Your task to perform on an android device: Open Amazon Image 0: 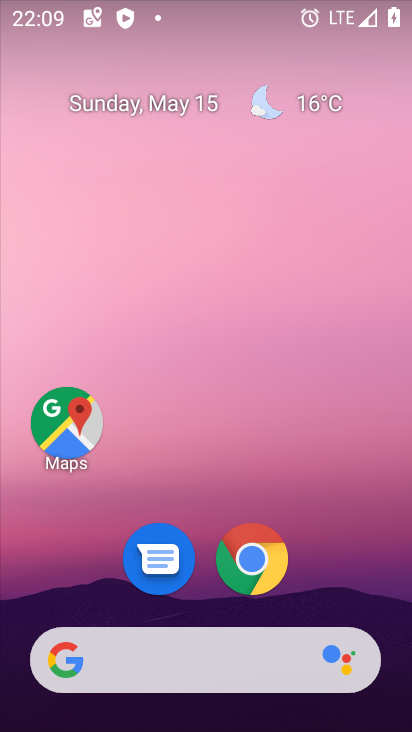
Step 0: click (260, 560)
Your task to perform on an android device: Open Amazon Image 1: 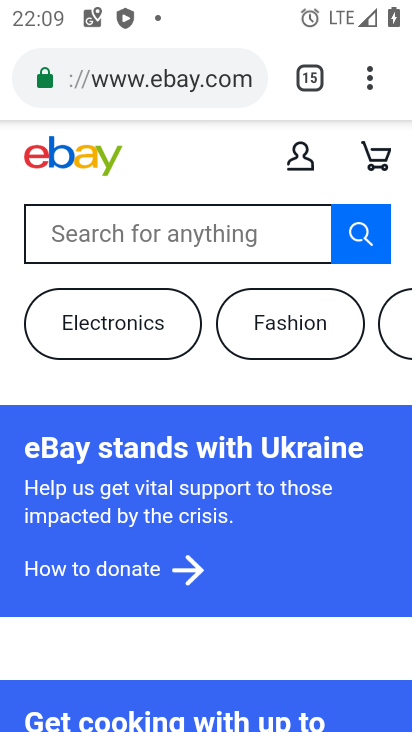
Step 1: click (362, 81)
Your task to perform on an android device: Open Amazon Image 2: 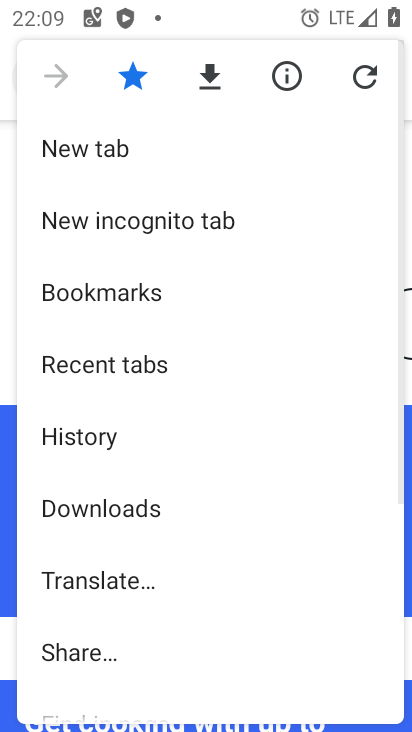
Step 2: click (77, 150)
Your task to perform on an android device: Open Amazon Image 3: 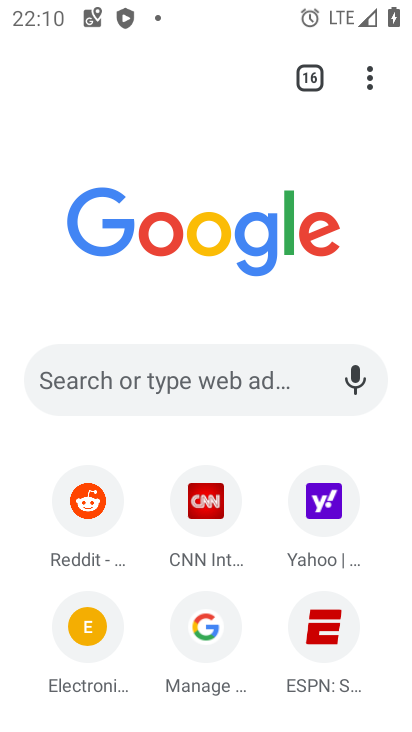
Step 3: click (134, 378)
Your task to perform on an android device: Open Amazon Image 4: 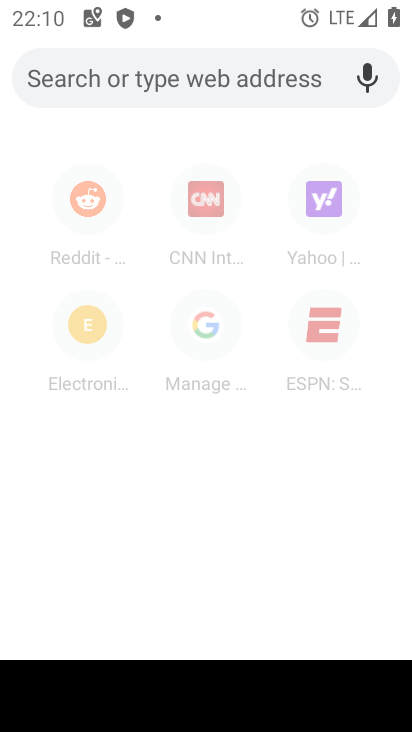
Step 4: type "amazon"
Your task to perform on an android device: Open Amazon Image 5: 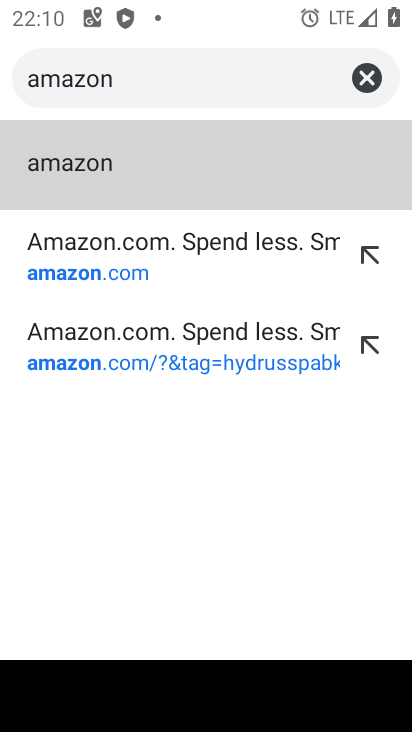
Step 5: click (99, 160)
Your task to perform on an android device: Open Amazon Image 6: 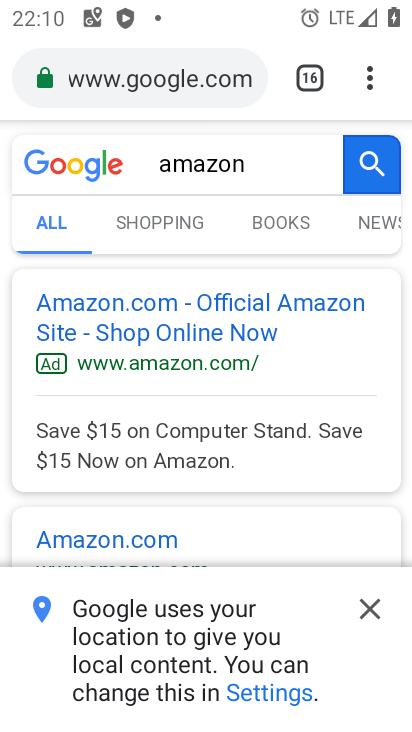
Step 6: task complete